Your task to perform on an android device: Go to sound settings Image 0: 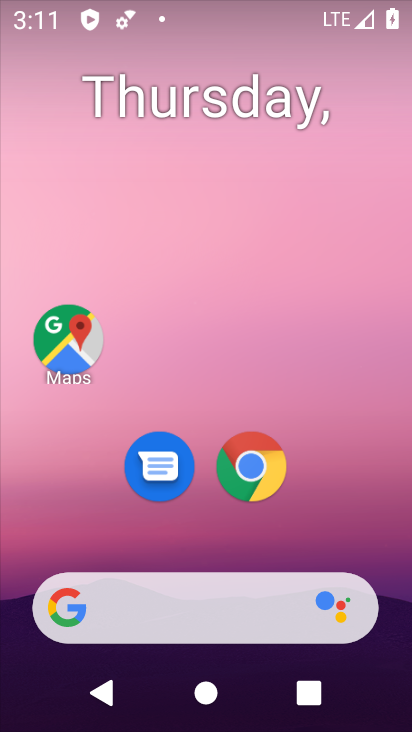
Step 0: drag from (197, 553) to (176, 27)
Your task to perform on an android device: Go to sound settings Image 1: 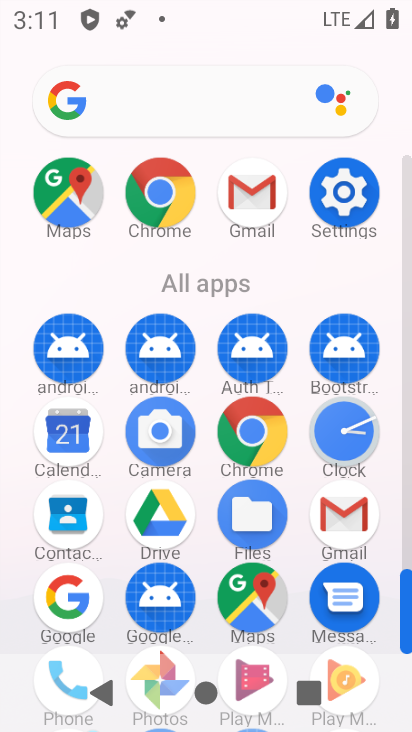
Step 1: click (345, 183)
Your task to perform on an android device: Go to sound settings Image 2: 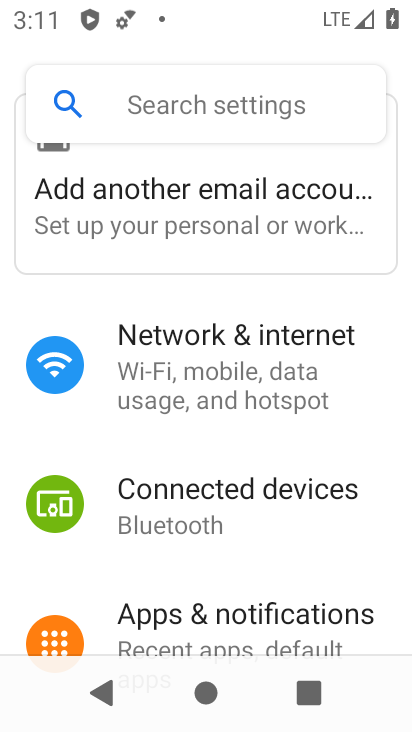
Step 2: drag from (291, 566) to (273, 135)
Your task to perform on an android device: Go to sound settings Image 3: 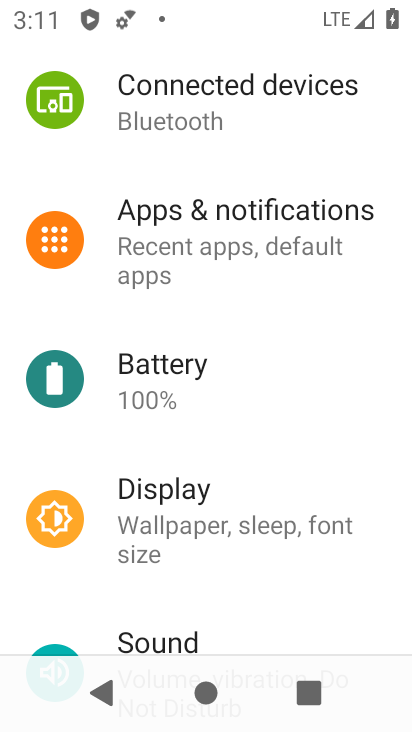
Step 3: click (194, 636)
Your task to perform on an android device: Go to sound settings Image 4: 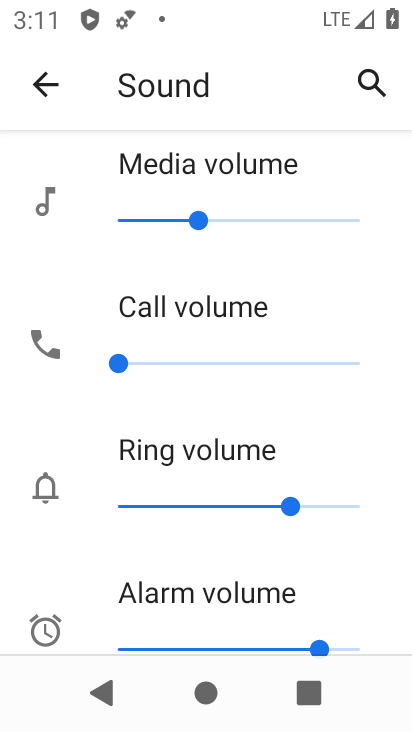
Step 4: task complete